Your task to perform on an android device: open a new tab in the chrome app Image 0: 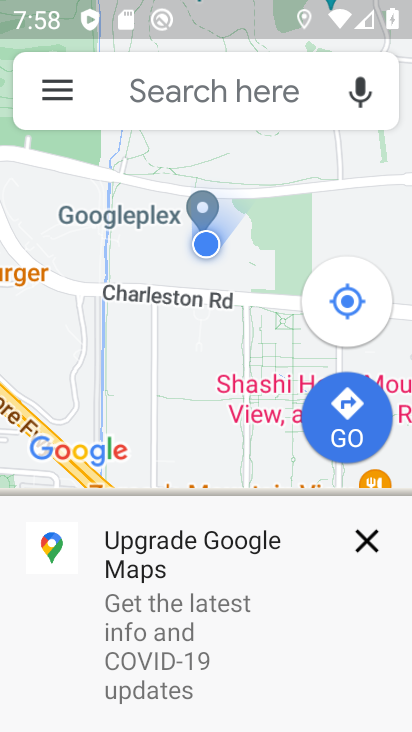
Step 0: press home button
Your task to perform on an android device: open a new tab in the chrome app Image 1: 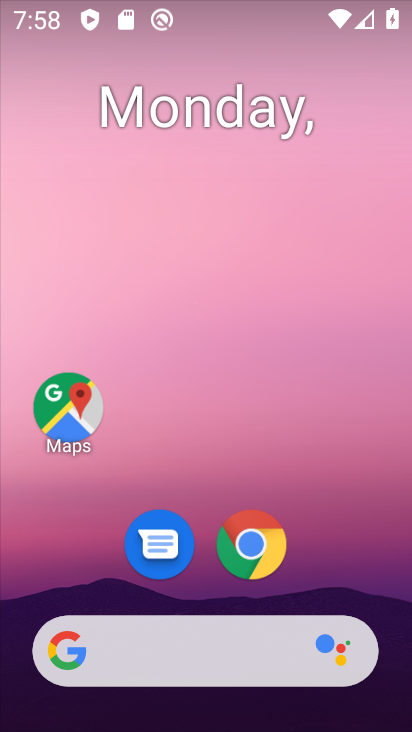
Step 1: click (258, 560)
Your task to perform on an android device: open a new tab in the chrome app Image 2: 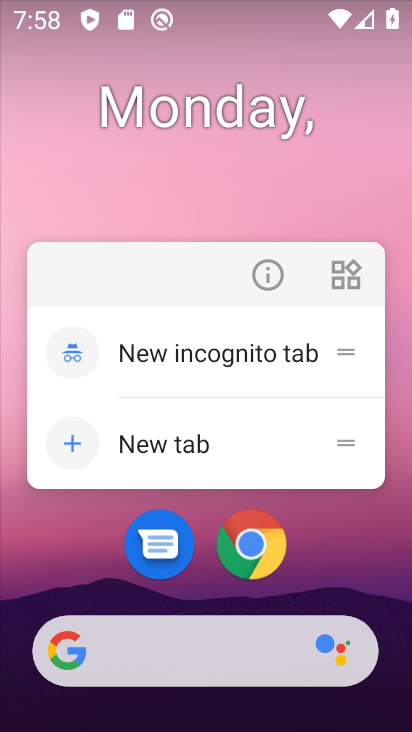
Step 2: click (250, 549)
Your task to perform on an android device: open a new tab in the chrome app Image 3: 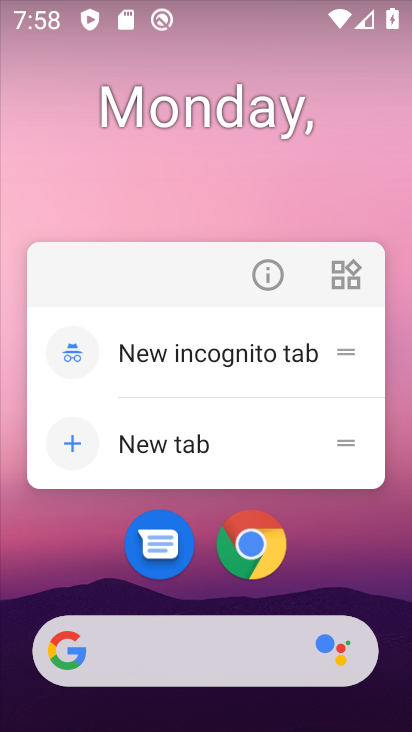
Step 3: click (250, 548)
Your task to perform on an android device: open a new tab in the chrome app Image 4: 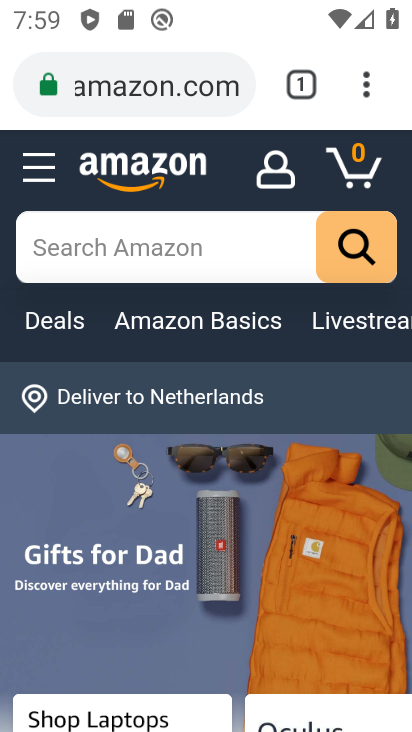
Step 4: click (301, 77)
Your task to perform on an android device: open a new tab in the chrome app Image 5: 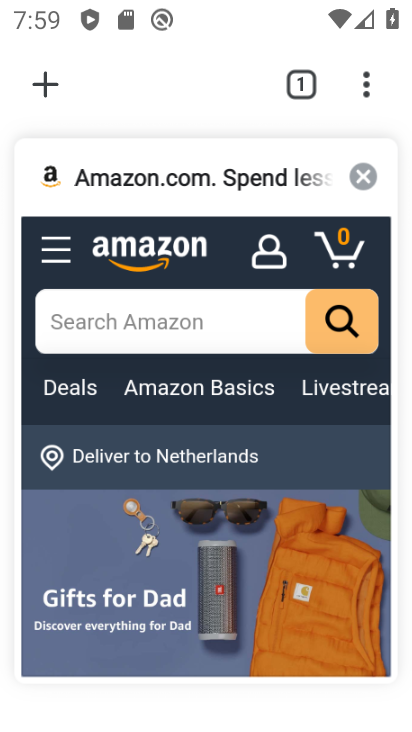
Step 5: click (19, 73)
Your task to perform on an android device: open a new tab in the chrome app Image 6: 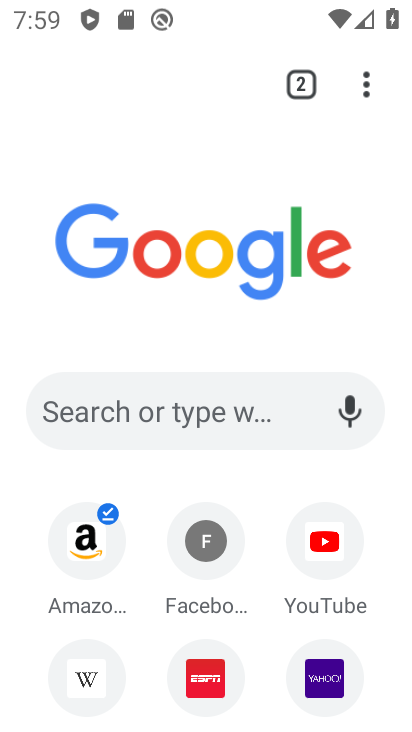
Step 6: task complete